Your task to perform on an android device: Open calendar and show me the fourth week of next month Image 0: 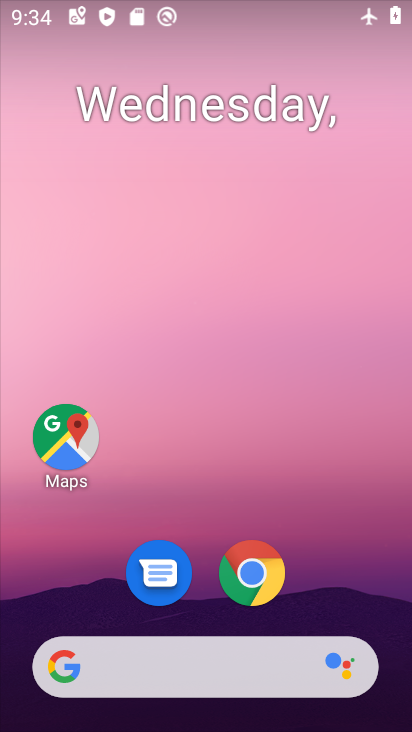
Step 0: drag from (373, 614) to (387, 226)
Your task to perform on an android device: Open calendar and show me the fourth week of next month Image 1: 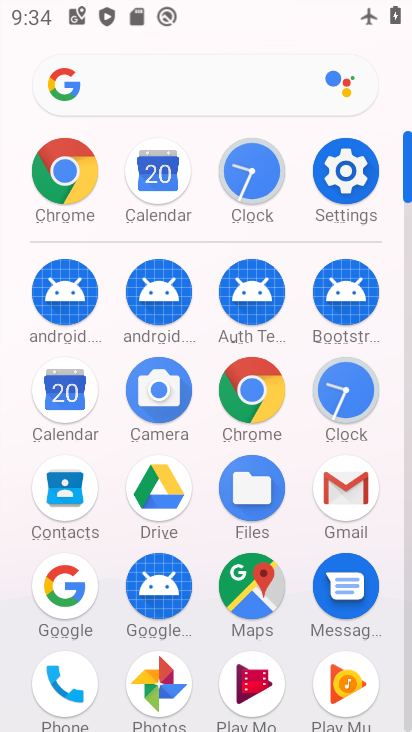
Step 1: click (154, 186)
Your task to perform on an android device: Open calendar and show me the fourth week of next month Image 2: 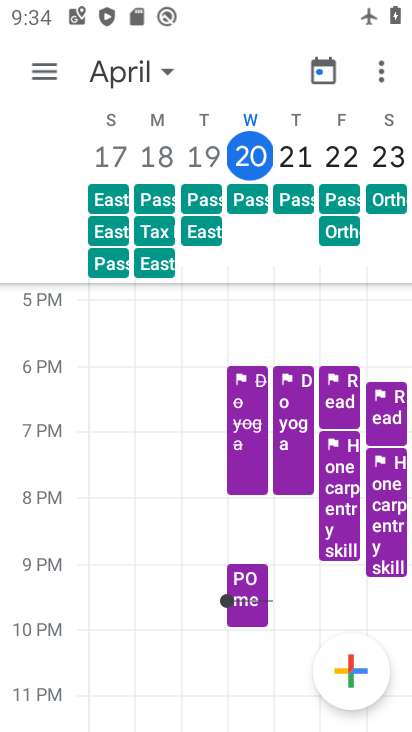
Step 2: click (170, 68)
Your task to perform on an android device: Open calendar and show me the fourth week of next month Image 3: 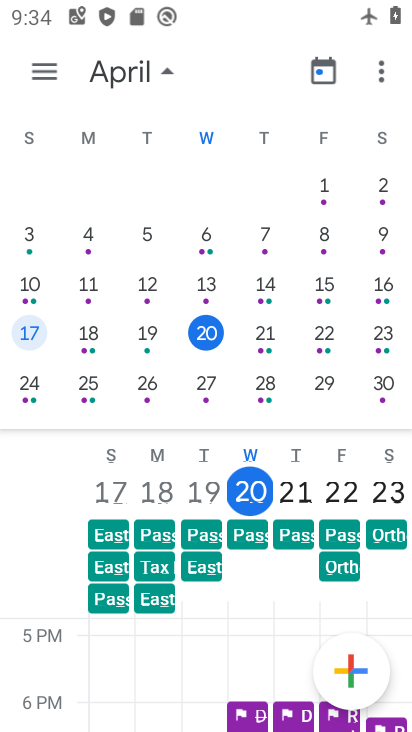
Step 3: drag from (408, 238) to (85, 214)
Your task to perform on an android device: Open calendar and show me the fourth week of next month Image 4: 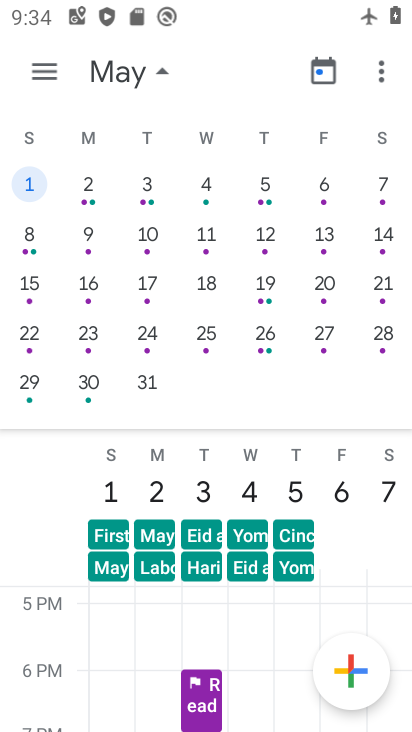
Step 4: click (200, 331)
Your task to perform on an android device: Open calendar and show me the fourth week of next month Image 5: 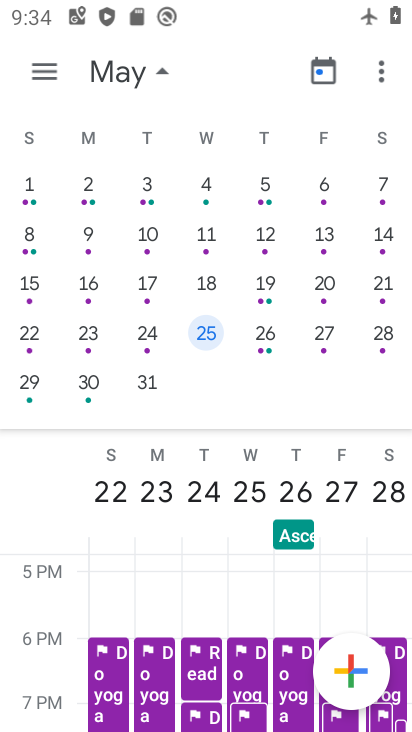
Step 5: task complete